Your task to perform on an android device: delete location history Image 0: 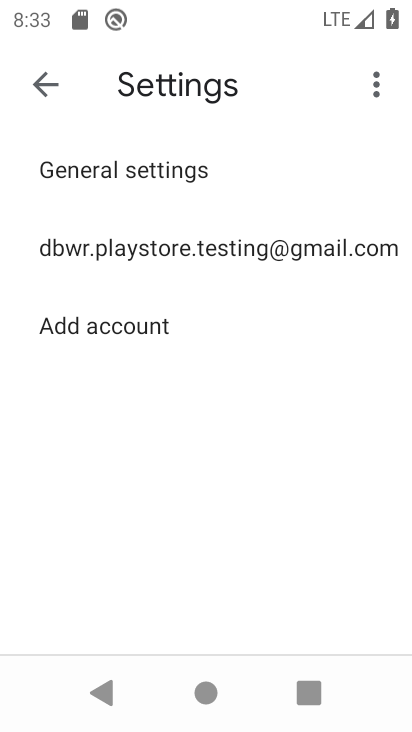
Step 0: press home button
Your task to perform on an android device: delete location history Image 1: 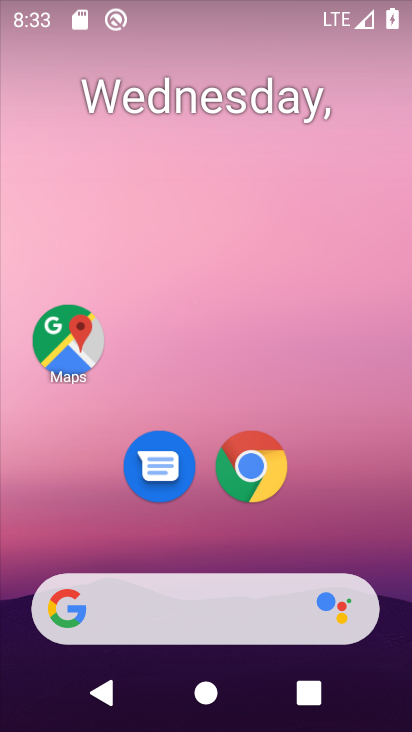
Step 1: drag from (230, 682) to (228, 195)
Your task to perform on an android device: delete location history Image 2: 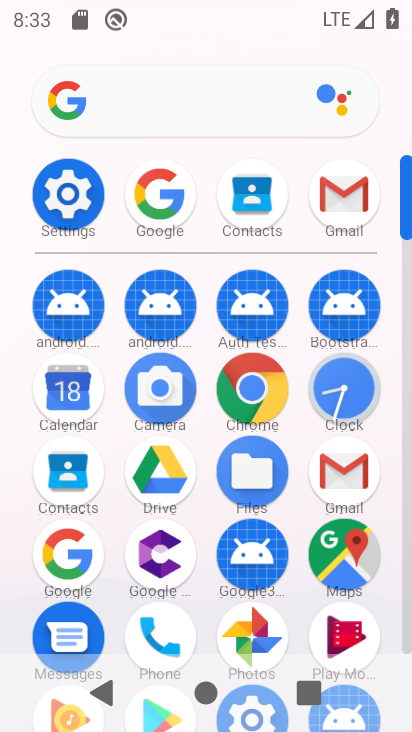
Step 2: click (334, 561)
Your task to perform on an android device: delete location history Image 3: 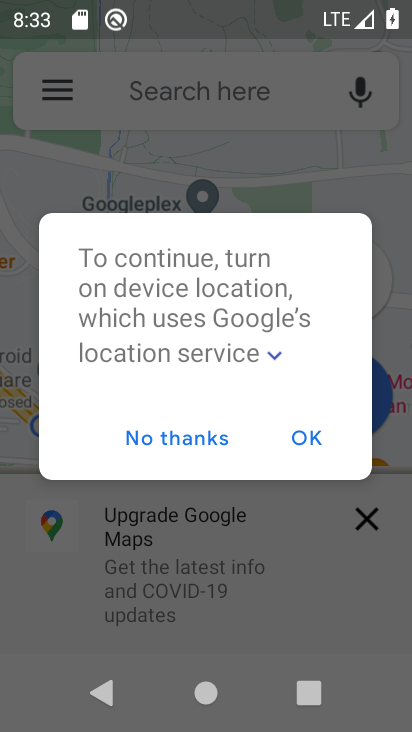
Step 3: click (201, 433)
Your task to perform on an android device: delete location history Image 4: 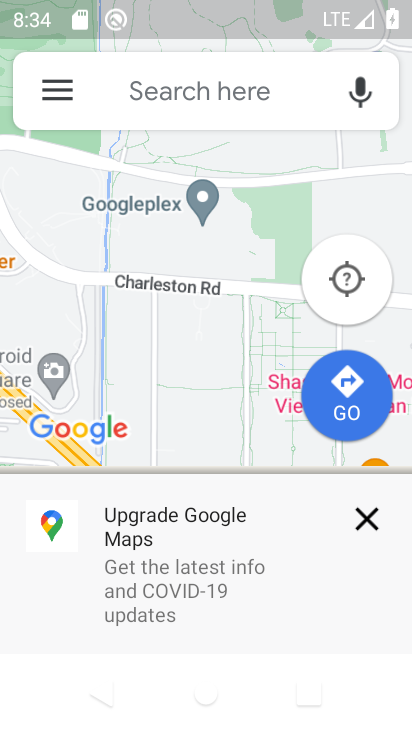
Step 4: click (56, 93)
Your task to perform on an android device: delete location history Image 5: 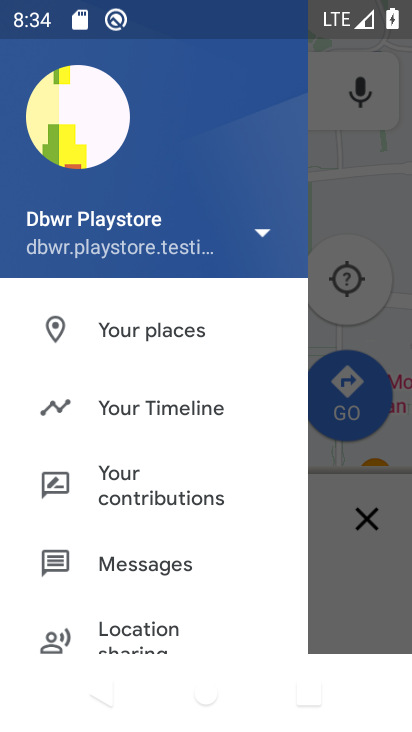
Step 5: click (165, 396)
Your task to perform on an android device: delete location history Image 6: 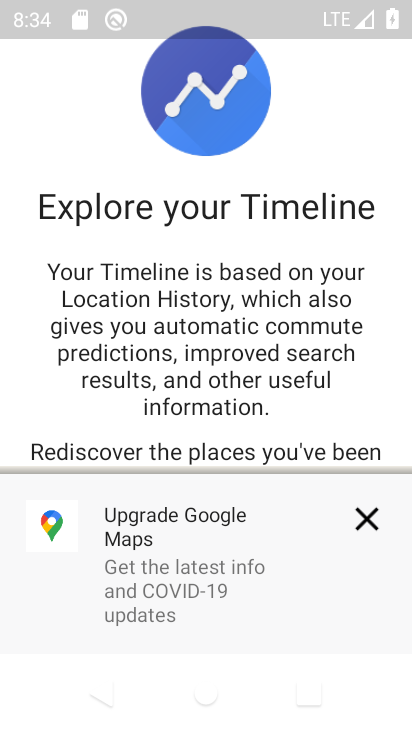
Step 6: click (362, 505)
Your task to perform on an android device: delete location history Image 7: 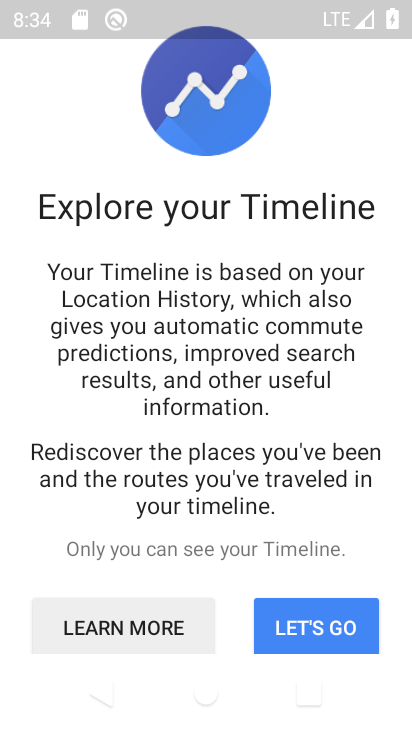
Step 7: click (335, 623)
Your task to perform on an android device: delete location history Image 8: 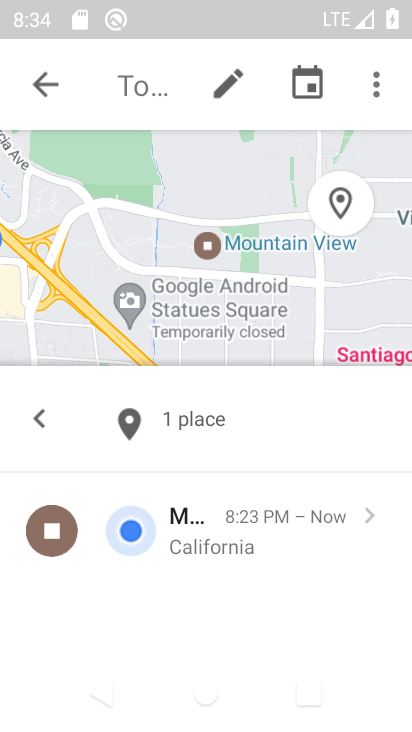
Step 8: click (375, 91)
Your task to perform on an android device: delete location history Image 9: 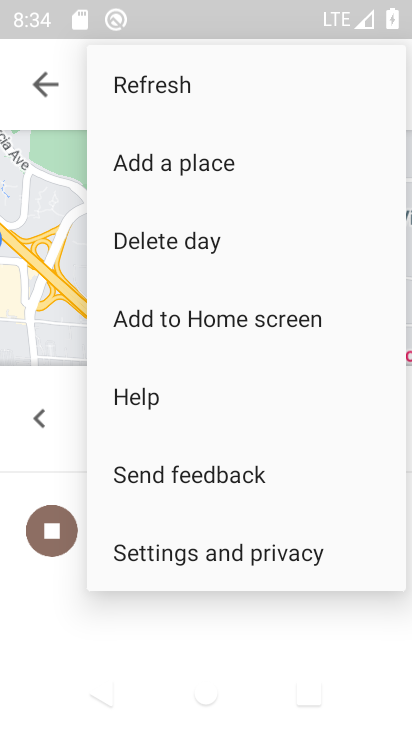
Step 9: click (153, 553)
Your task to perform on an android device: delete location history Image 10: 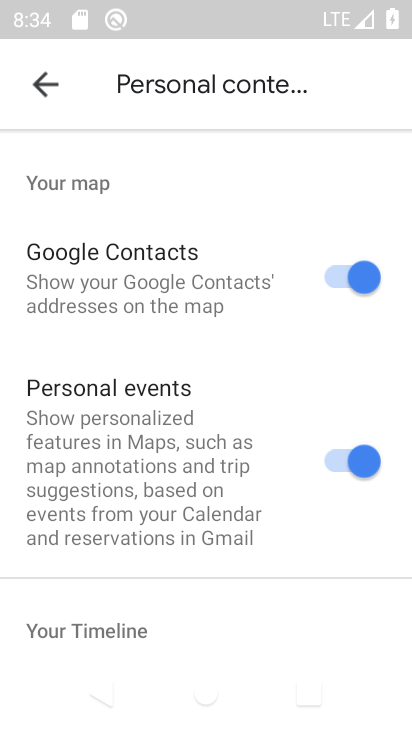
Step 10: drag from (150, 565) to (172, 107)
Your task to perform on an android device: delete location history Image 11: 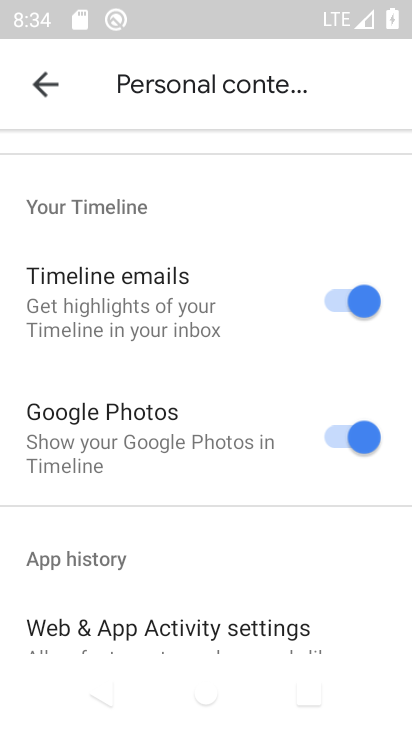
Step 11: drag from (174, 625) to (184, 198)
Your task to perform on an android device: delete location history Image 12: 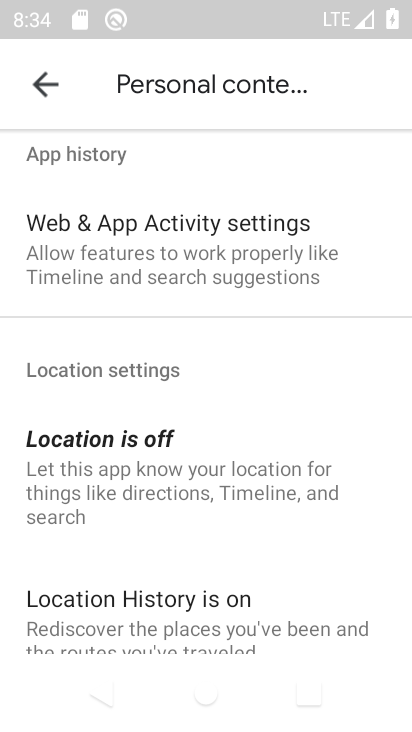
Step 12: drag from (175, 604) to (179, 233)
Your task to perform on an android device: delete location history Image 13: 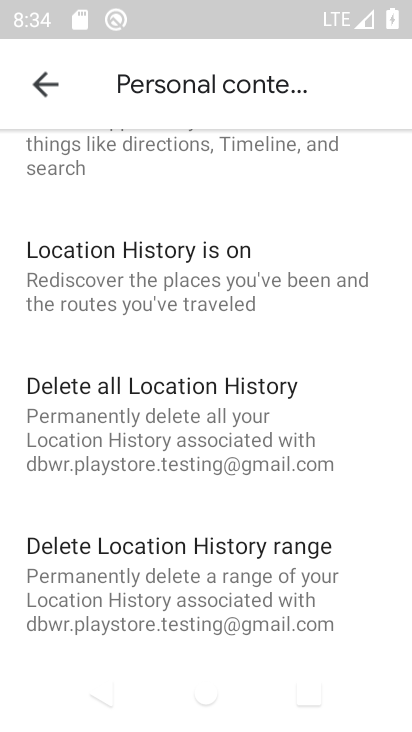
Step 13: click (163, 406)
Your task to perform on an android device: delete location history Image 14: 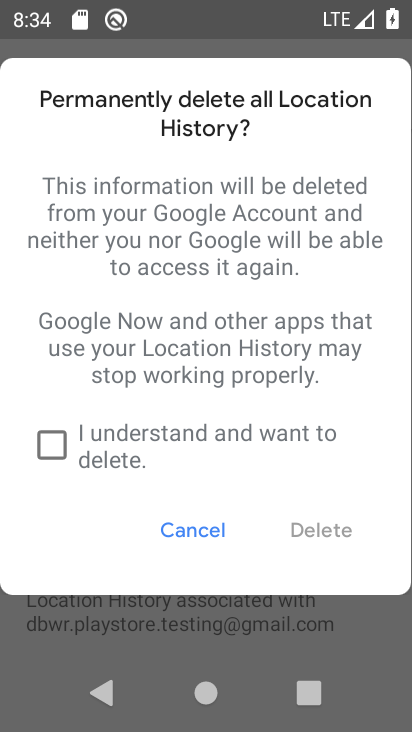
Step 14: click (50, 444)
Your task to perform on an android device: delete location history Image 15: 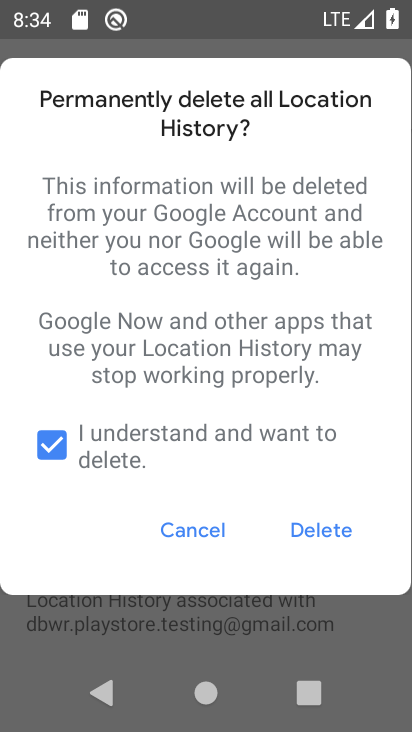
Step 15: click (325, 522)
Your task to perform on an android device: delete location history Image 16: 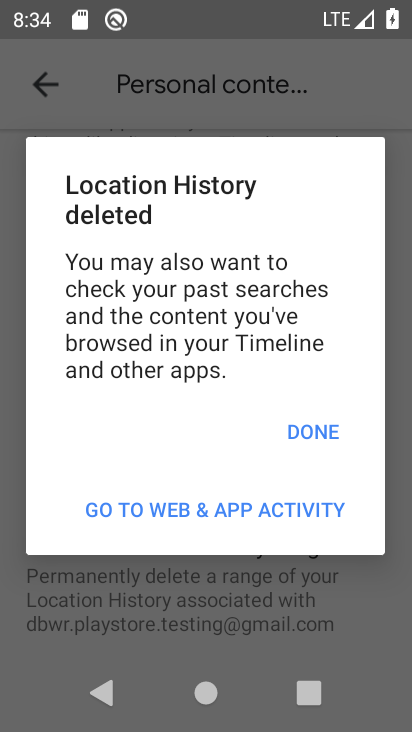
Step 16: click (312, 427)
Your task to perform on an android device: delete location history Image 17: 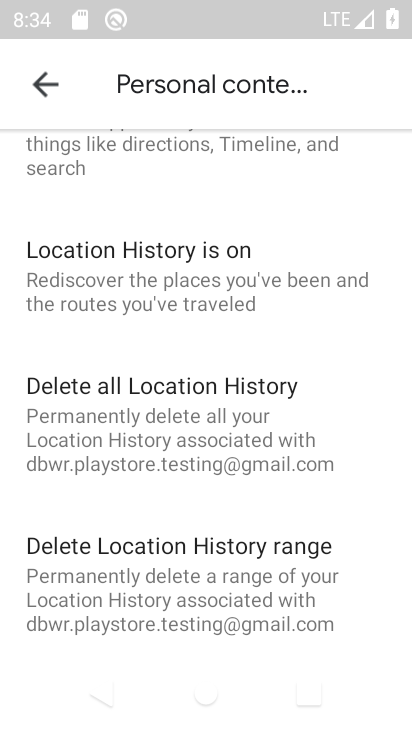
Step 17: task complete